Your task to perform on an android device: Open accessibility settings Image 0: 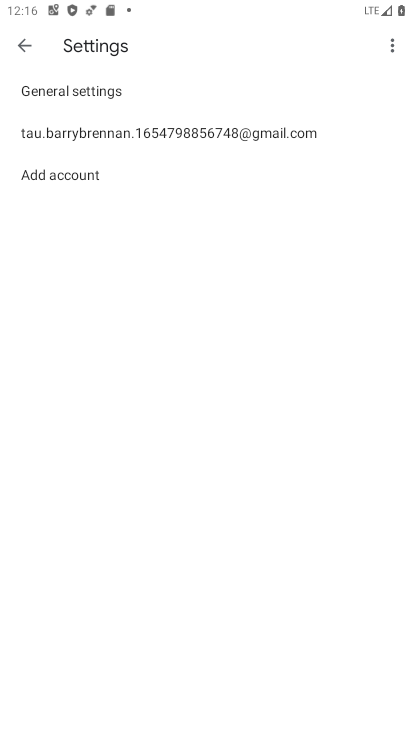
Step 0: press home button
Your task to perform on an android device: Open accessibility settings Image 1: 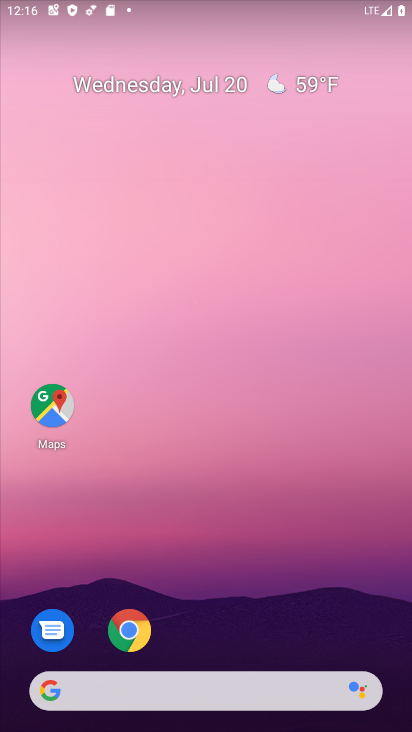
Step 1: drag from (276, 679) to (303, 227)
Your task to perform on an android device: Open accessibility settings Image 2: 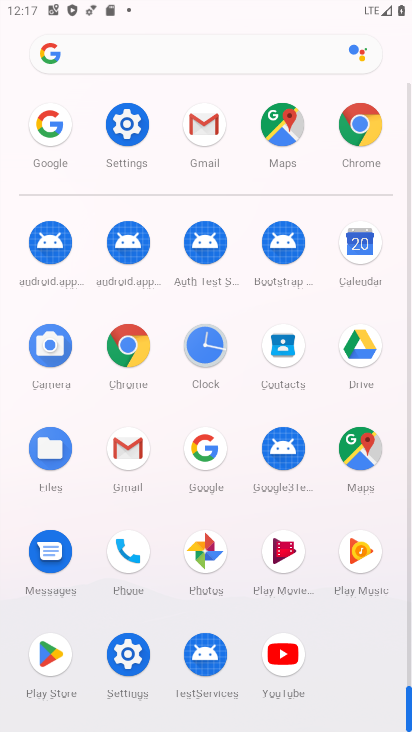
Step 2: click (122, 128)
Your task to perform on an android device: Open accessibility settings Image 3: 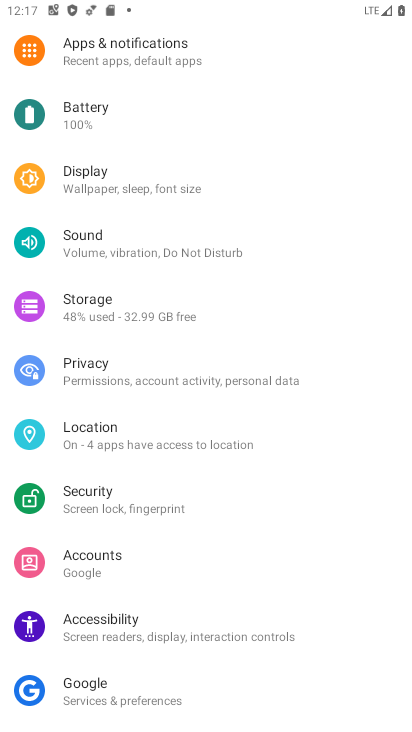
Step 3: click (112, 618)
Your task to perform on an android device: Open accessibility settings Image 4: 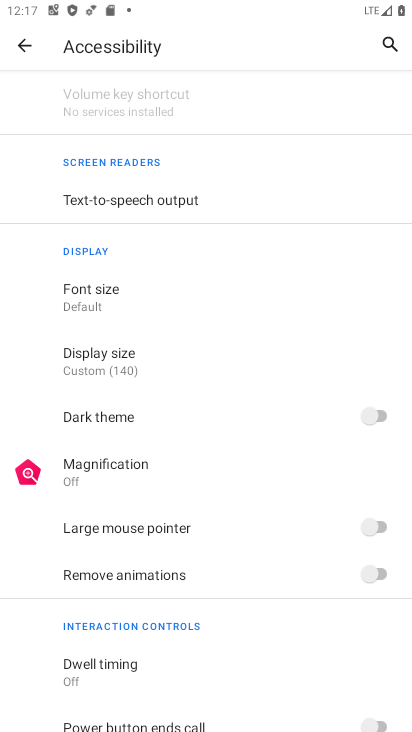
Step 4: task complete